Your task to perform on an android device: change your default location settings in chrome Image 0: 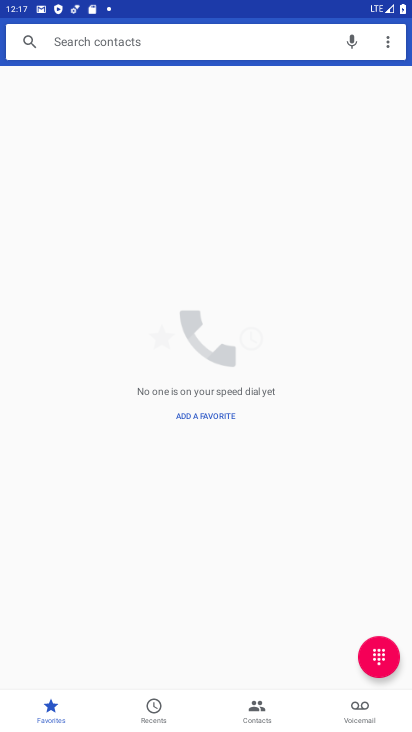
Step 0: press home button
Your task to perform on an android device: change your default location settings in chrome Image 1: 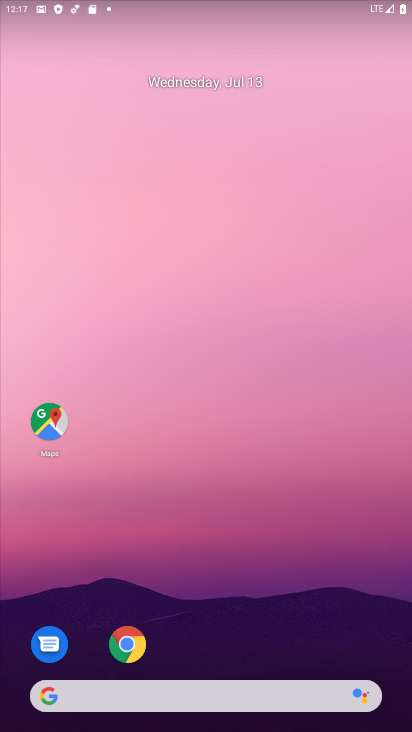
Step 1: click (132, 647)
Your task to perform on an android device: change your default location settings in chrome Image 2: 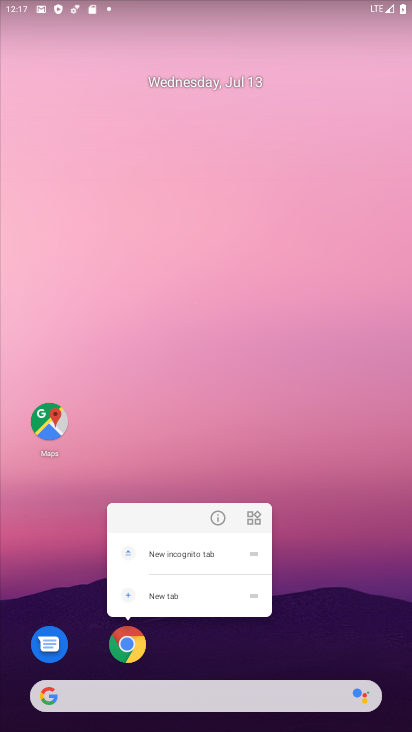
Step 2: click (122, 643)
Your task to perform on an android device: change your default location settings in chrome Image 3: 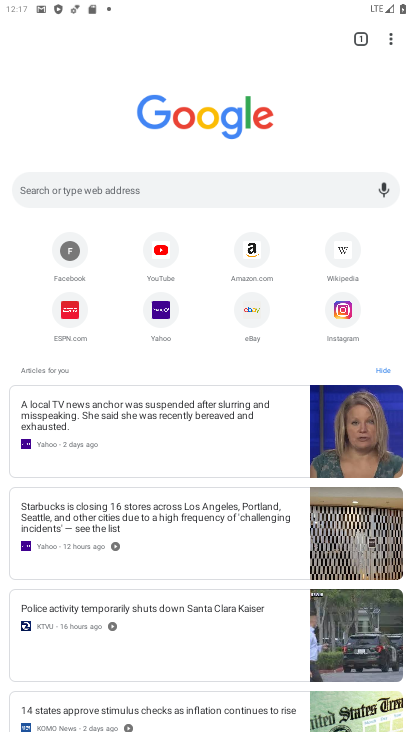
Step 3: click (390, 43)
Your task to perform on an android device: change your default location settings in chrome Image 4: 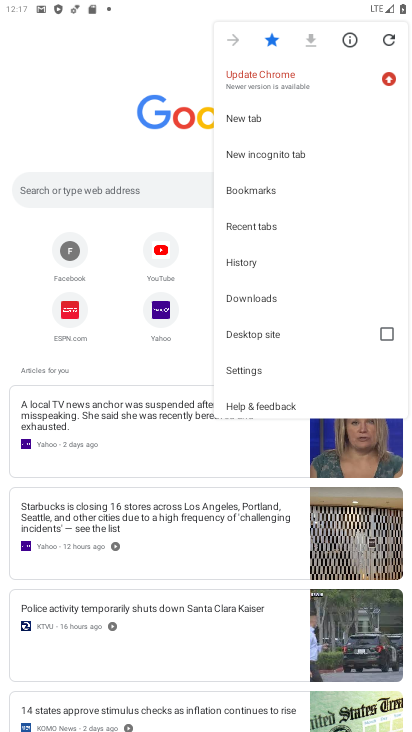
Step 4: click (243, 373)
Your task to perform on an android device: change your default location settings in chrome Image 5: 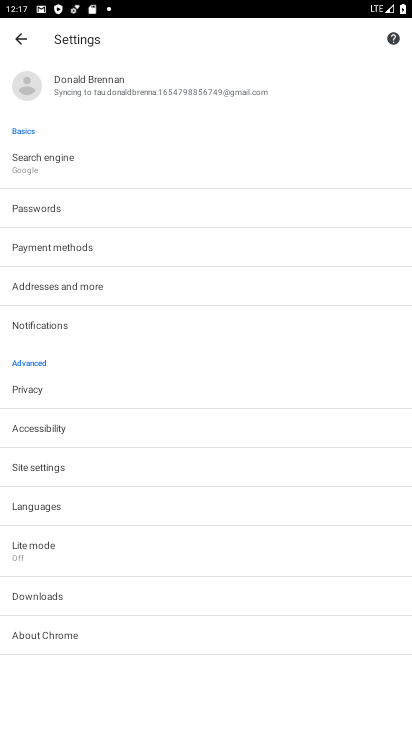
Step 5: click (55, 468)
Your task to perform on an android device: change your default location settings in chrome Image 6: 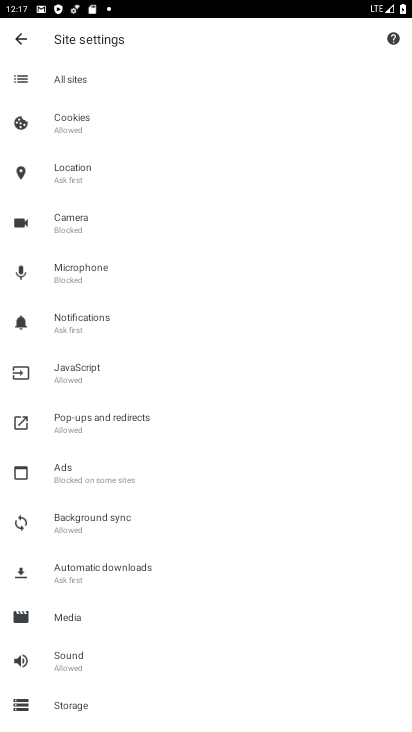
Step 6: click (65, 171)
Your task to perform on an android device: change your default location settings in chrome Image 7: 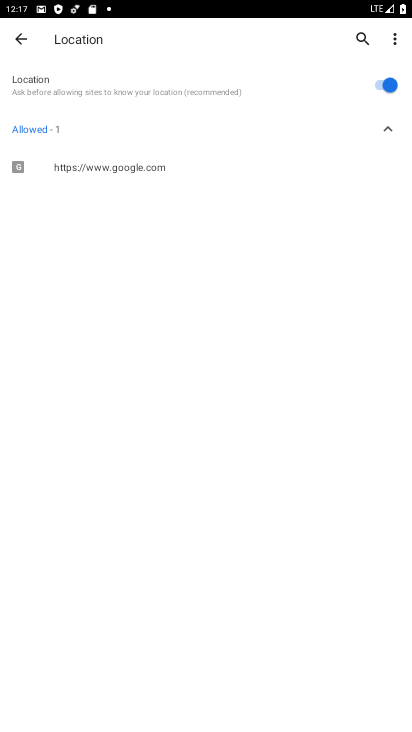
Step 7: click (375, 84)
Your task to perform on an android device: change your default location settings in chrome Image 8: 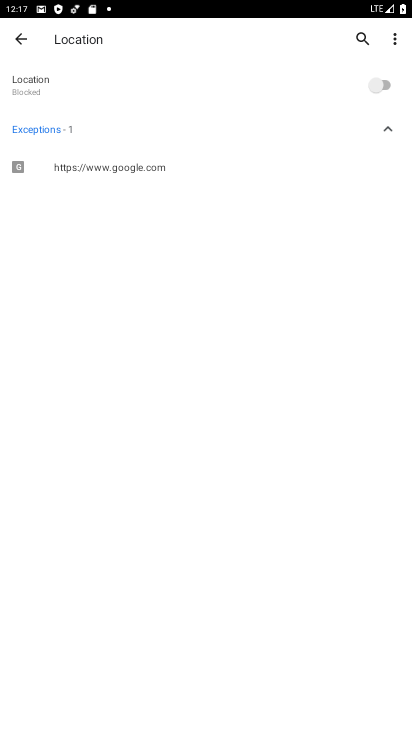
Step 8: task complete